Your task to perform on an android device: change the clock display to analog Image 0: 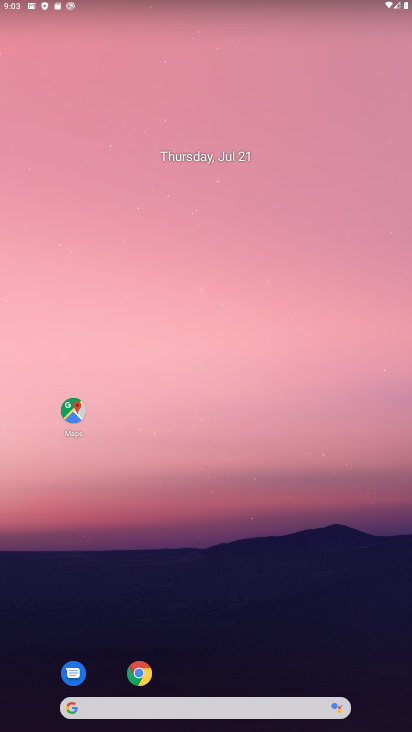
Step 0: drag from (207, 600) to (213, 214)
Your task to perform on an android device: change the clock display to analog Image 1: 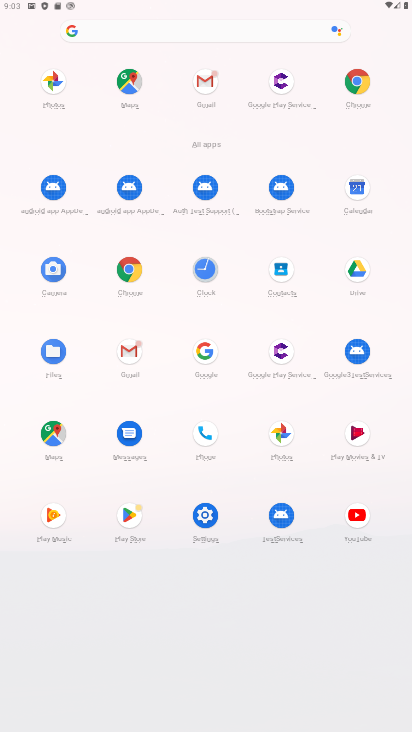
Step 1: click (198, 267)
Your task to perform on an android device: change the clock display to analog Image 2: 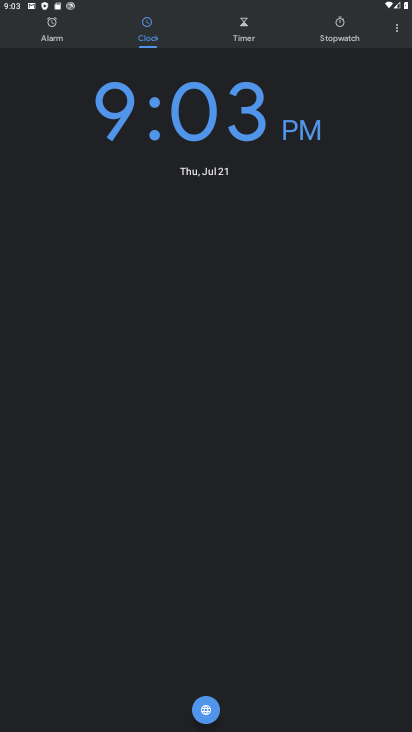
Step 2: drag from (402, 35) to (362, 55)
Your task to perform on an android device: change the clock display to analog Image 3: 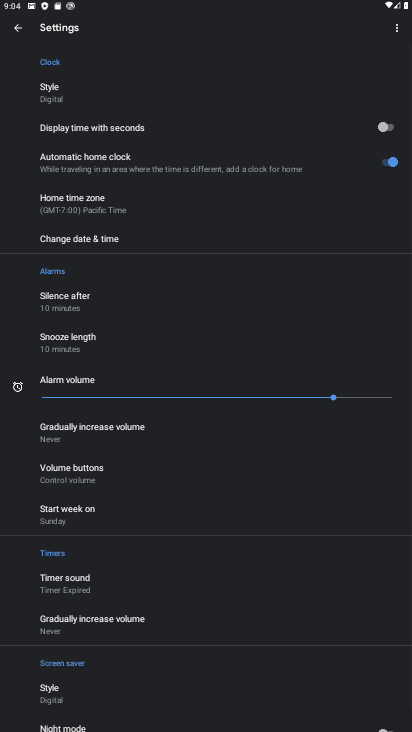
Step 3: click (84, 104)
Your task to perform on an android device: change the clock display to analog Image 4: 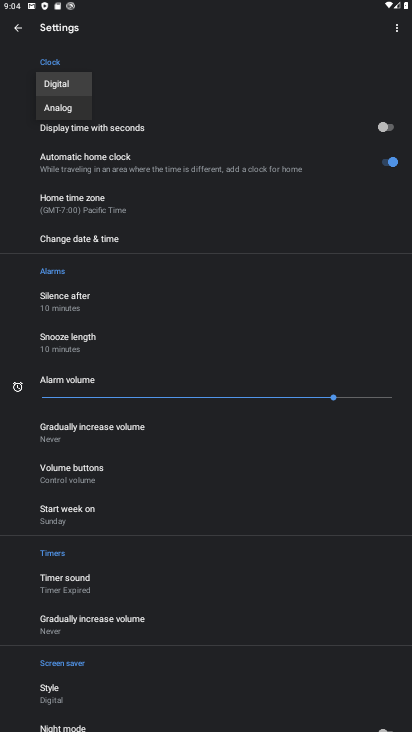
Step 4: click (80, 110)
Your task to perform on an android device: change the clock display to analog Image 5: 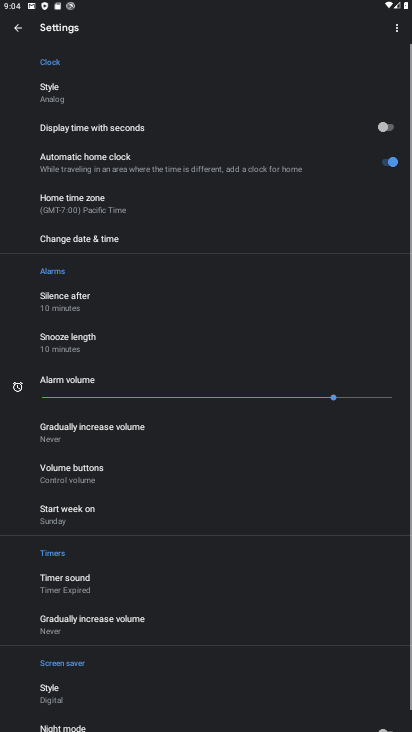
Step 5: task complete